Your task to perform on an android device: toggle priority inbox in the gmail app Image 0: 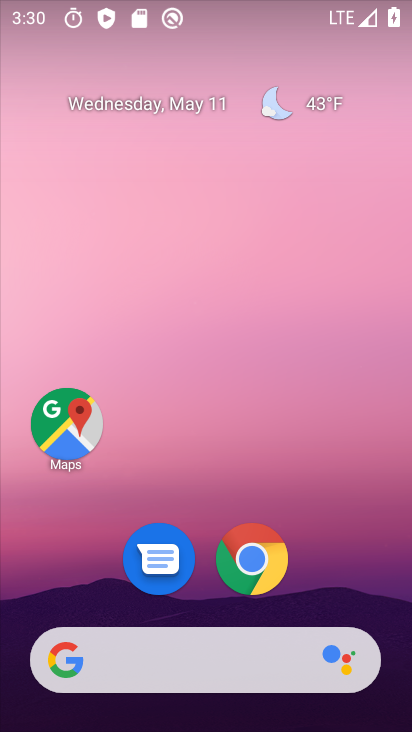
Step 0: drag from (316, 497) to (218, 55)
Your task to perform on an android device: toggle priority inbox in the gmail app Image 1: 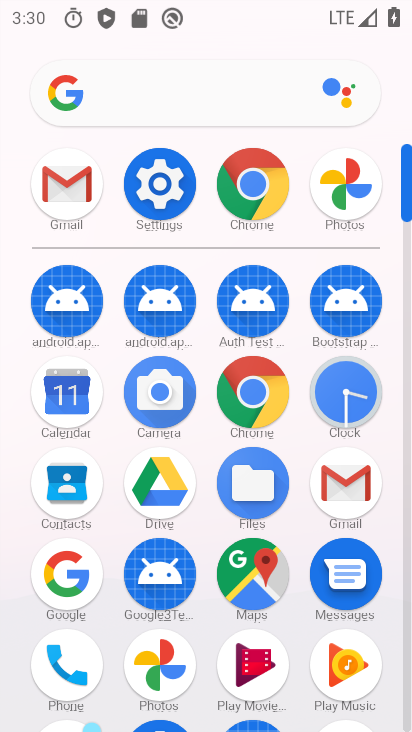
Step 1: click (69, 191)
Your task to perform on an android device: toggle priority inbox in the gmail app Image 2: 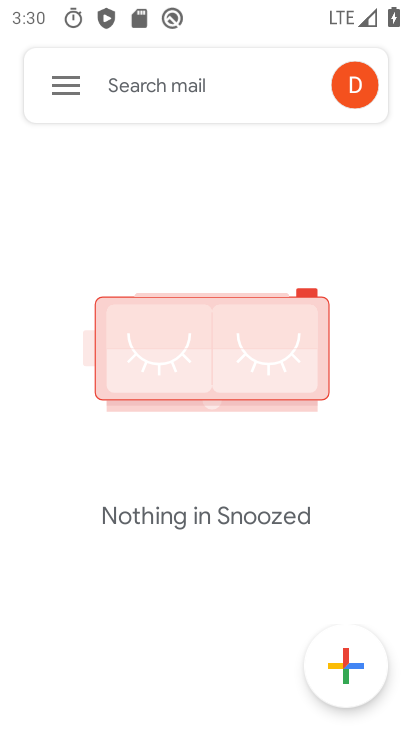
Step 2: click (62, 81)
Your task to perform on an android device: toggle priority inbox in the gmail app Image 3: 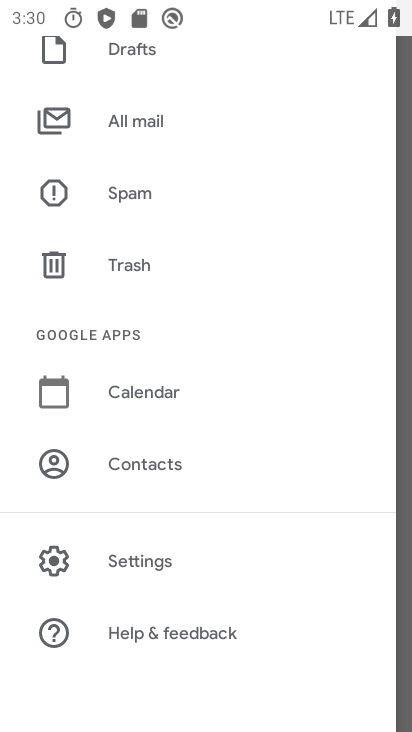
Step 3: click (212, 559)
Your task to perform on an android device: toggle priority inbox in the gmail app Image 4: 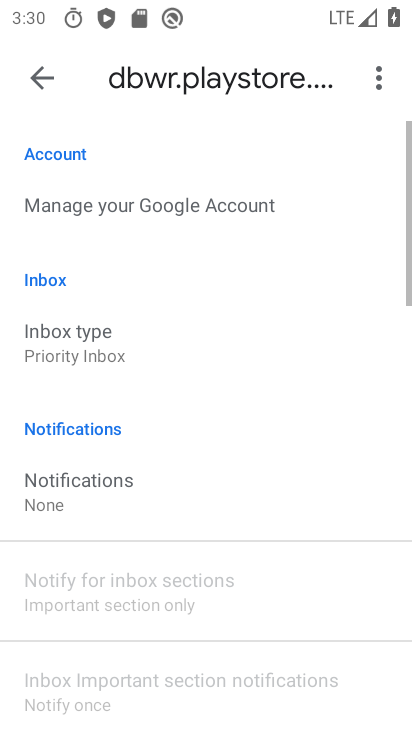
Step 4: click (129, 345)
Your task to perform on an android device: toggle priority inbox in the gmail app Image 5: 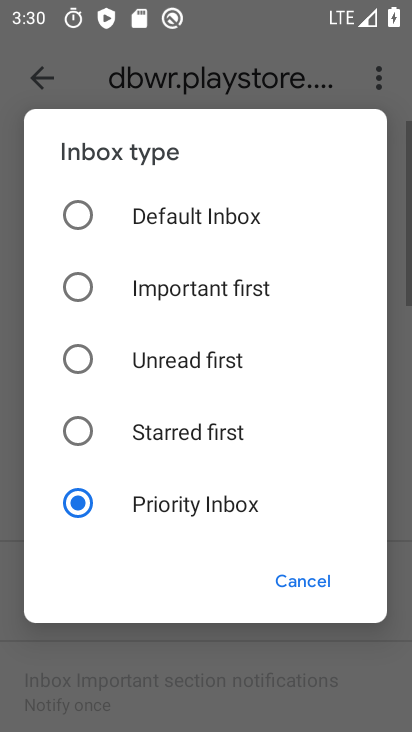
Step 5: click (176, 224)
Your task to perform on an android device: toggle priority inbox in the gmail app Image 6: 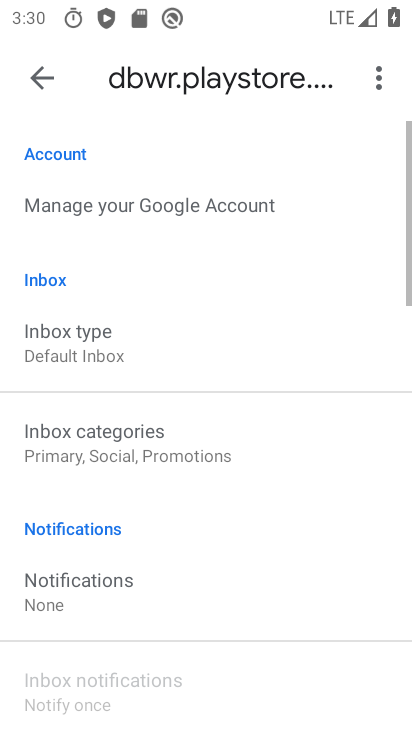
Step 6: task complete